Your task to perform on an android device: Open display settings Image 0: 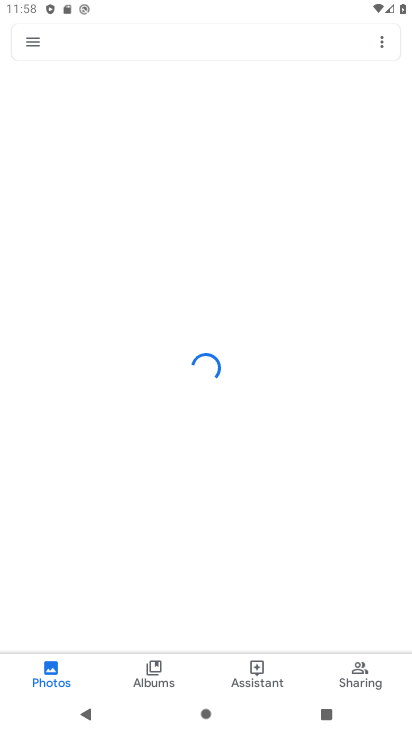
Step 0: press home button
Your task to perform on an android device: Open display settings Image 1: 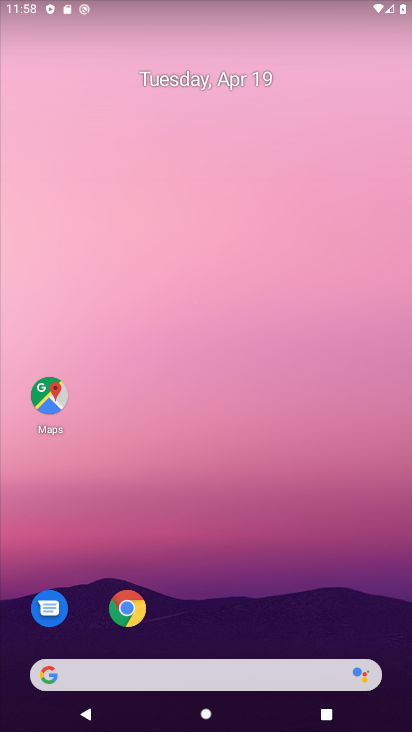
Step 1: drag from (258, 589) to (239, 66)
Your task to perform on an android device: Open display settings Image 2: 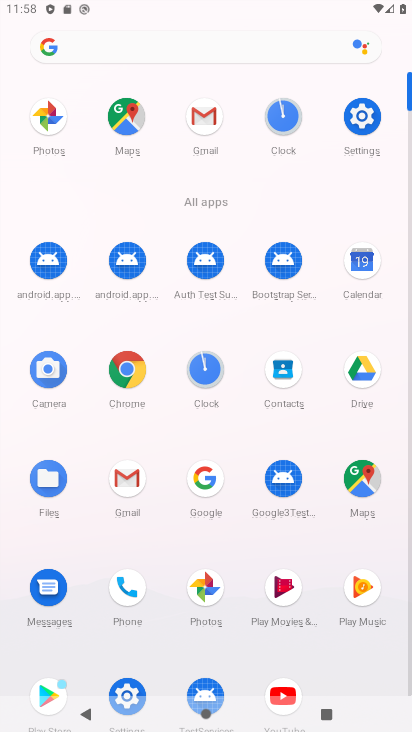
Step 2: click (354, 122)
Your task to perform on an android device: Open display settings Image 3: 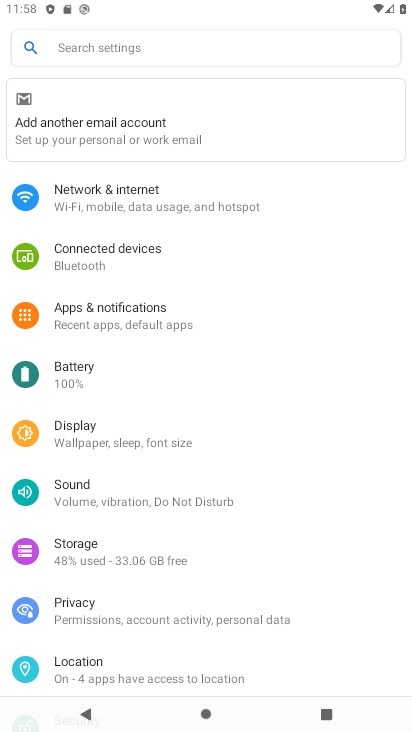
Step 3: click (123, 434)
Your task to perform on an android device: Open display settings Image 4: 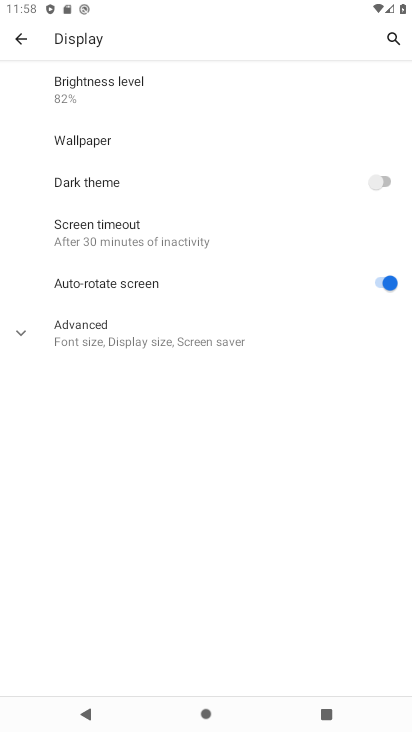
Step 4: task complete